Your task to perform on an android device: Do I have any events this weekend? Image 0: 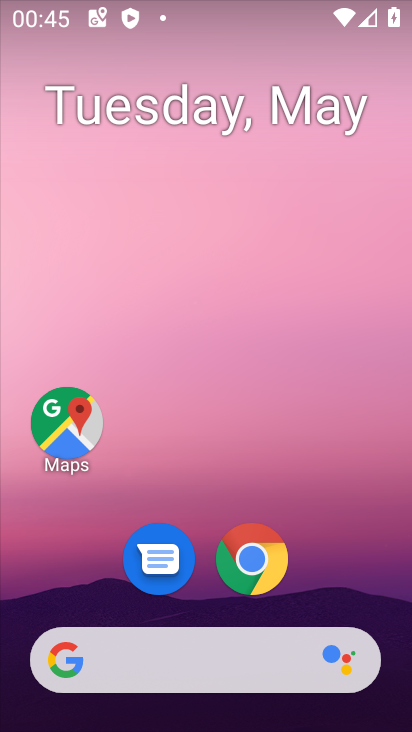
Step 0: drag from (309, 440) to (268, 161)
Your task to perform on an android device: Do I have any events this weekend? Image 1: 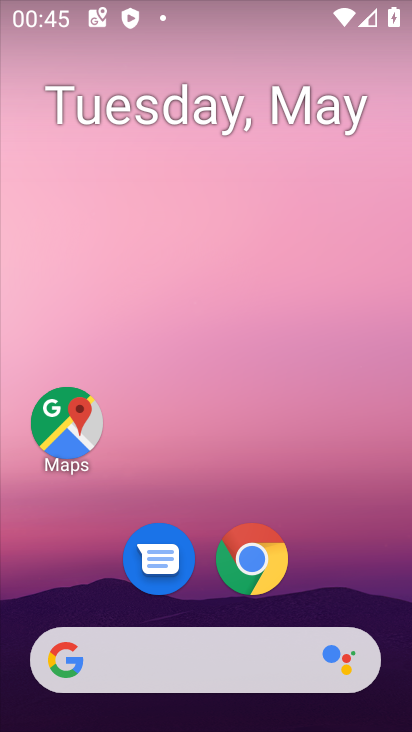
Step 1: drag from (324, 514) to (235, 2)
Your task to perform on an android device: Do I have any events this weekend? Image 2: 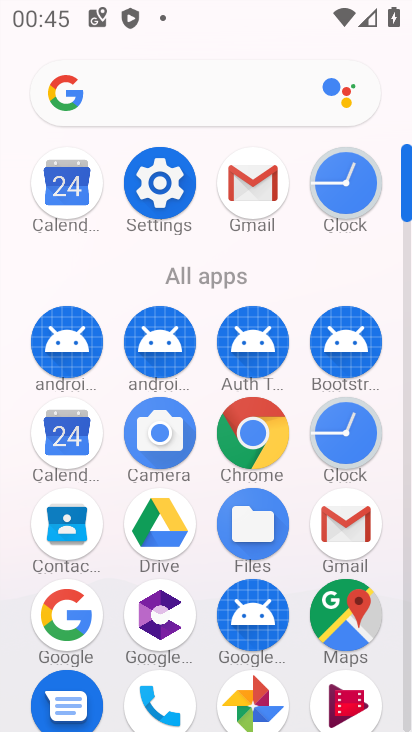
Step 2: click (73, 209)
Your task to perform on an android device: Do I have any events this weekend? Image 3: 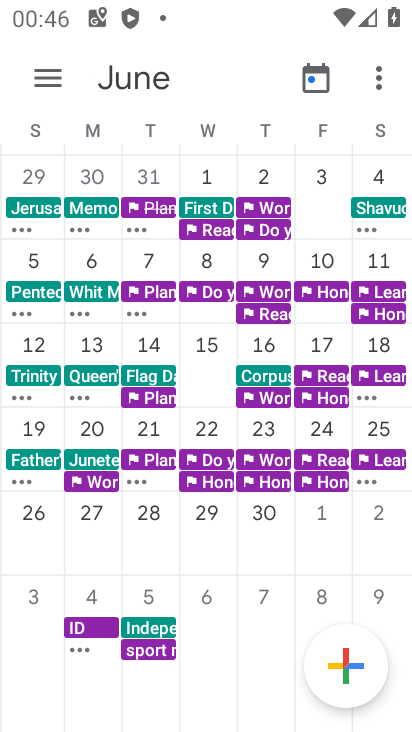
Step 3: task complete